Your task to perform on an android device: Open Yahoo.com Image 0: 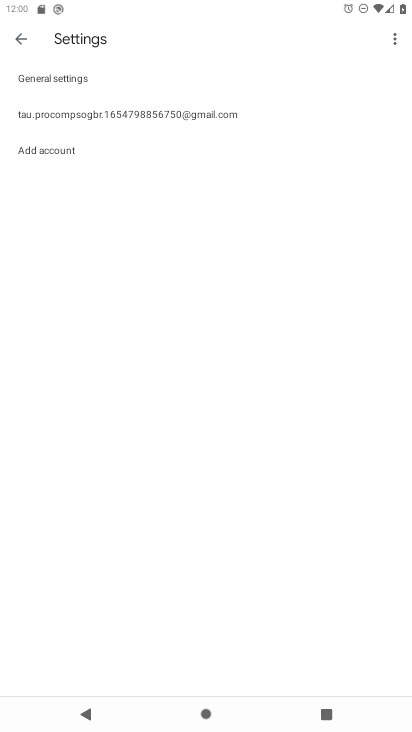
Step 0: press home button
Your task to perform on an android device: Open Yahoo.com Image 1: 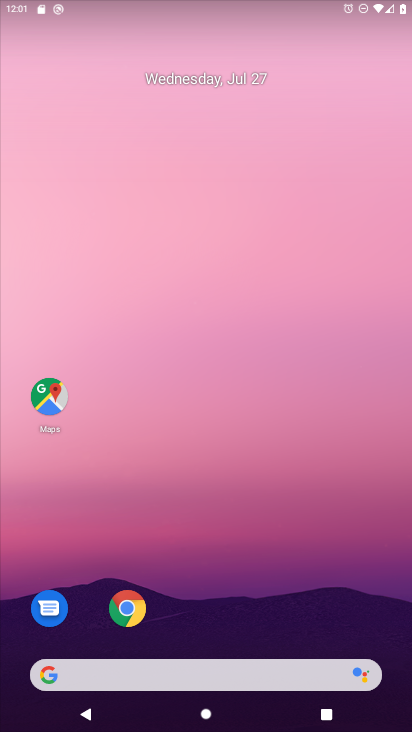
Step 1: drag from (233, 568) to (285, 29)
Your task to perform on an android device: Open Yahoo.com Image 2: 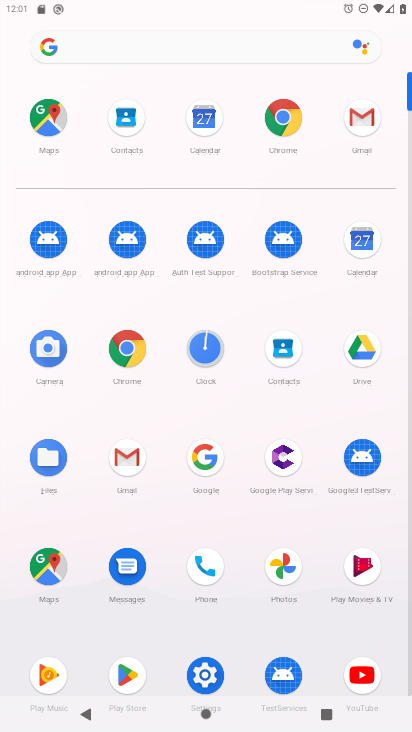
Step 2: click (280, 115)
Your task to perform on an android device: Open Yahoo.com Image 3: 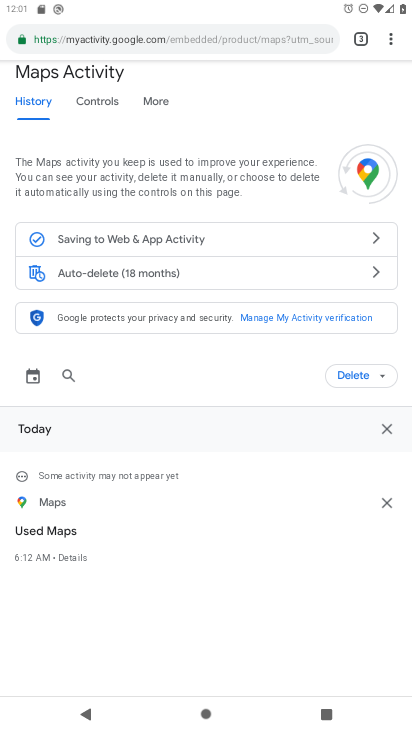
Step 3: click (216, 42)
Your task to perform on an android device: Open Yahoo.com Image 4: 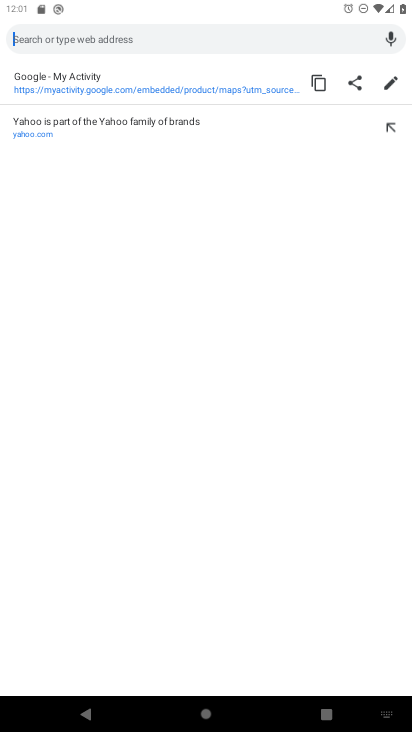
Step 4: click (31, 134)
Your task to perform on an android device: Open Yahoo.com Image 5: 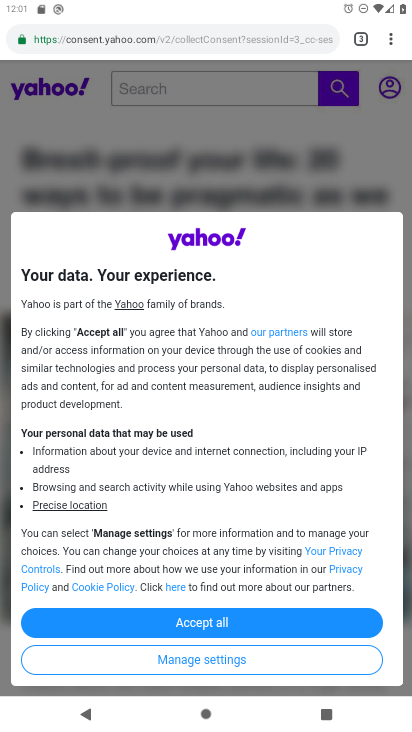
Step 5: task complete